Your task to perform on an android device: Open Chrome and go to settings Image 0: 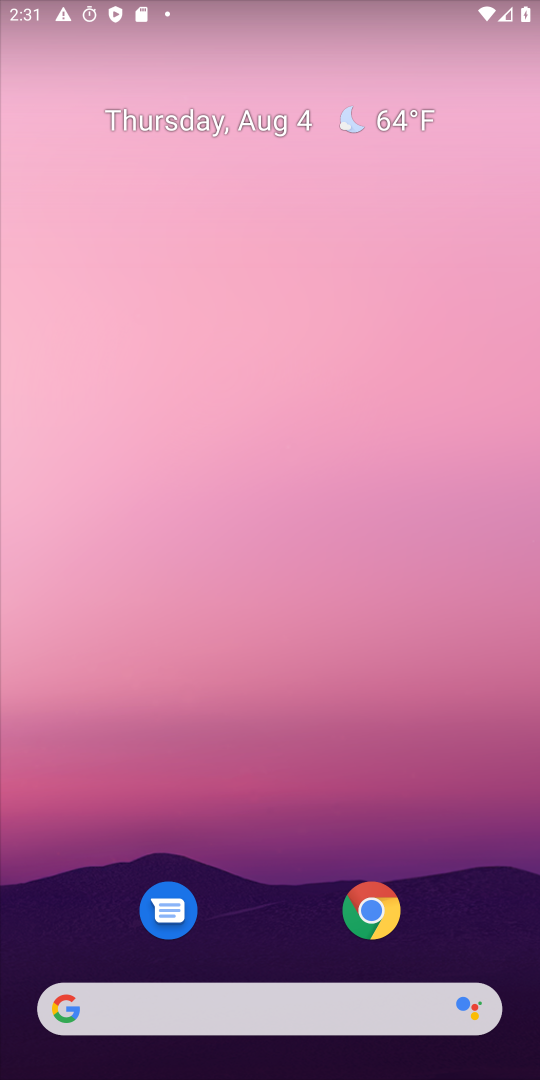
Step 0: click (390, 902)
Your task to perform on an android device: Open Chrome and go to settings Image 1: 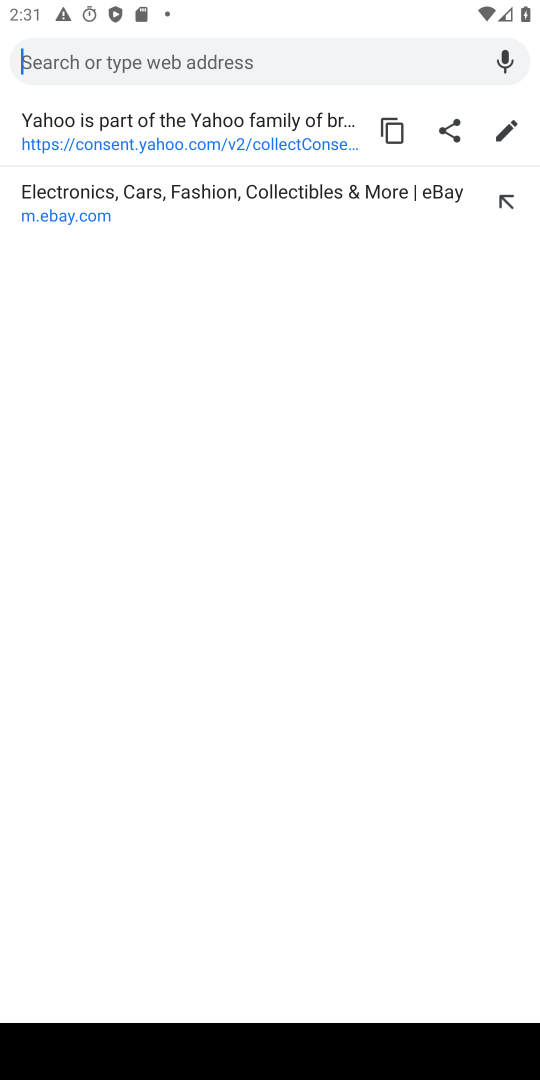
Step 1: press back button
Your task to perform on an android device: Open Chrome and go to settings Image 2: 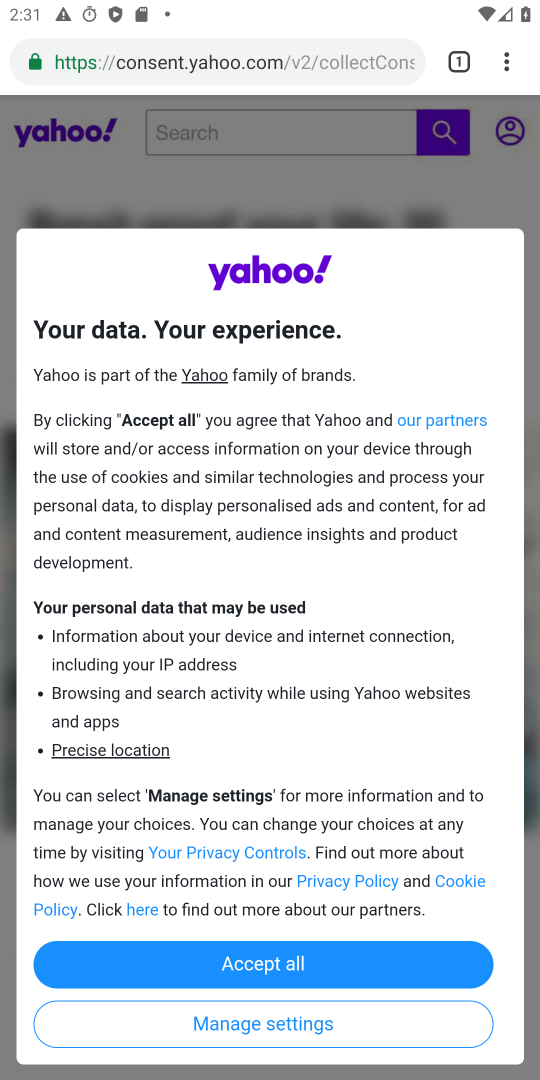
Step 2: click (510, 69)
Your task to perform on an android device: Open Chrome and go to settings Image 3: 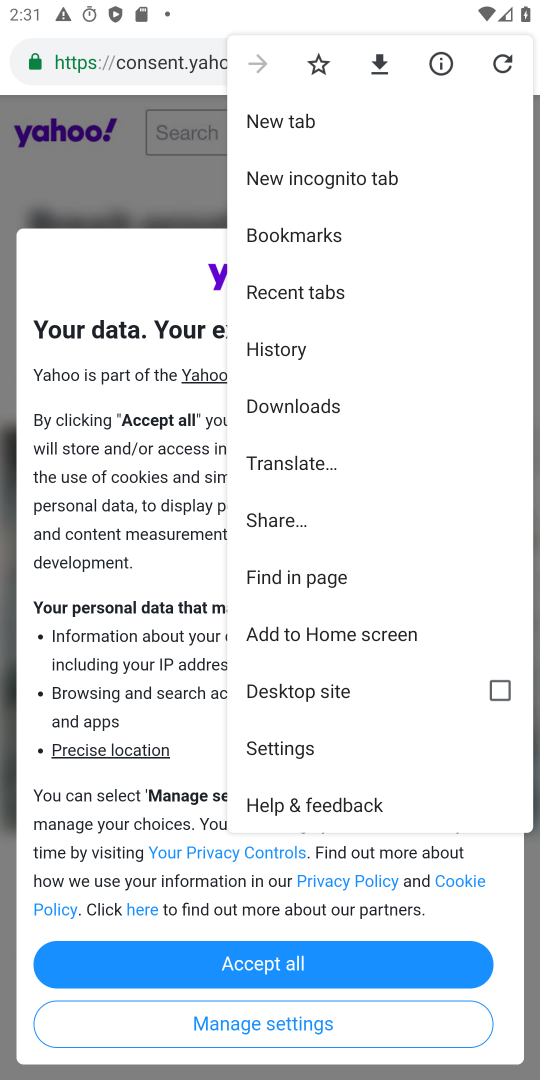
Step 3: click (317, 756)
Your task to perform on an android device: Open Chrome and go to settings Image 4: 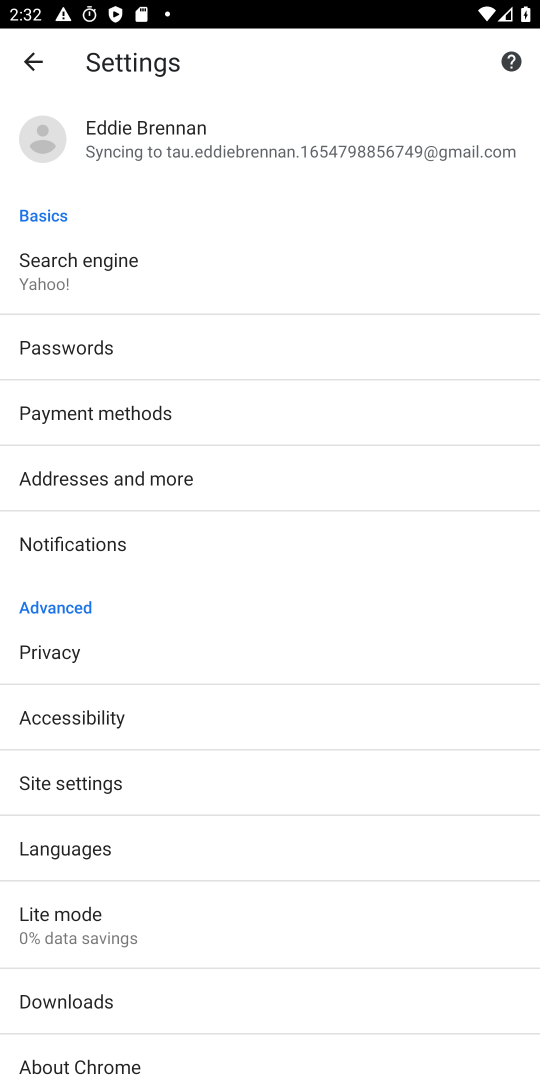
Step 4: task complete